Your task to perform on an android device: Show the shopping cart on ebay.com. Add acer nitro to the cart on ebay.com, then select checkout. Image 0: 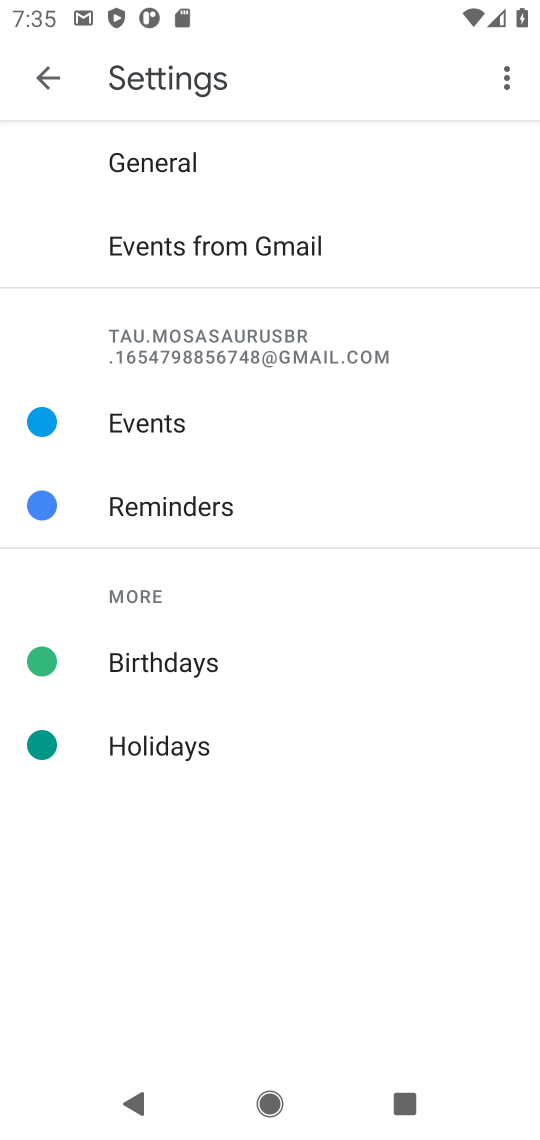
Step 0: click (507, 1113)
Your task to perform on an android device: Show the shopping cart on ebay.com. Add acer nitro to the cart on ebay.com, then select checkout. Image 1: 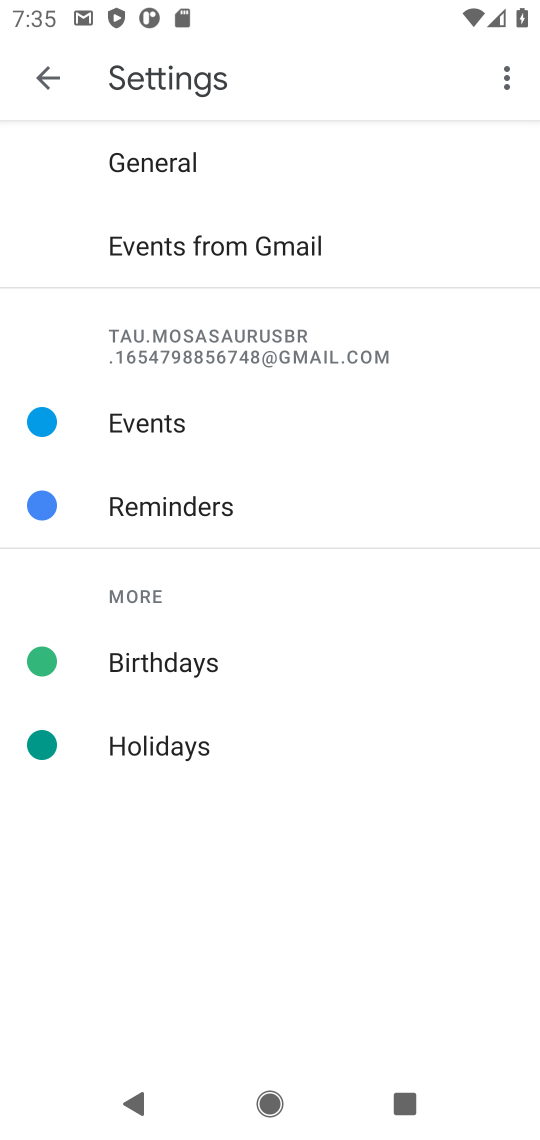
Step 1: press home button
Your task to perform on an android device: Show the shopping cart on ebay.com. Add acer nitro to the cart on ebay.com, then select checkout. Image 2: 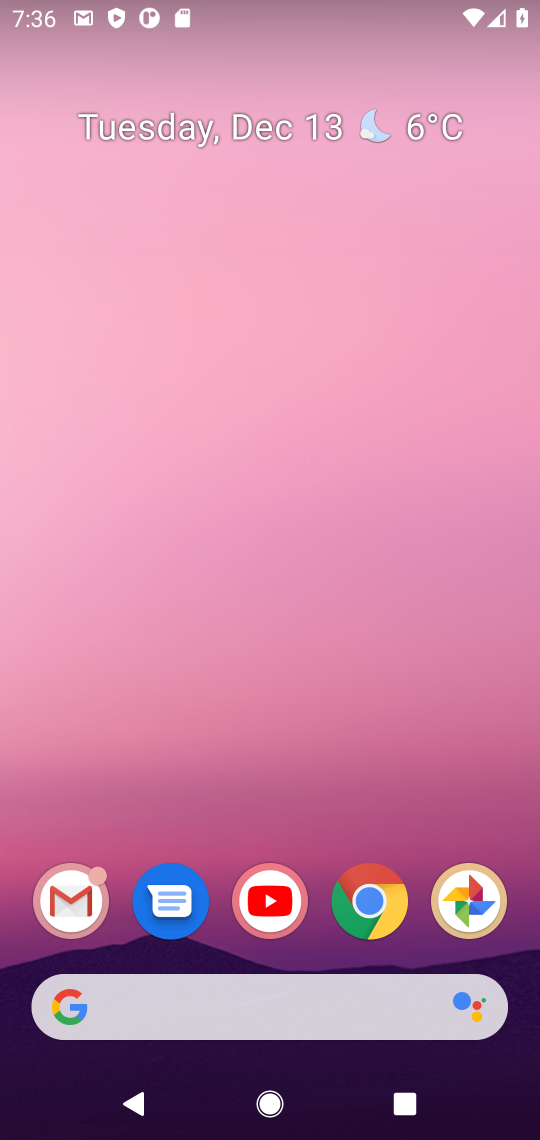
Step 2: click (359, 904)
Your task to perform on an android device: Show the shopping cart on ebay.com. Add acer nitro to the cart on ebay.com, then select checkout. Image 3: 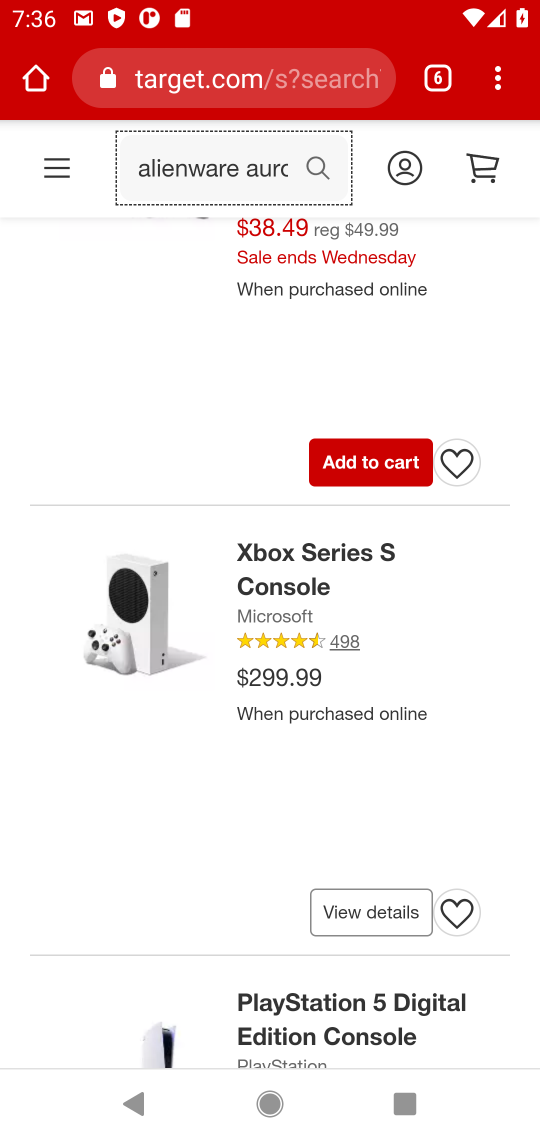
Step 3: click (437, 65)
Your task to perform on an android device: Show the shopping cart on ebay.com. Add acer nitro to the cart on ebay.com, then select checkout. Image 4: 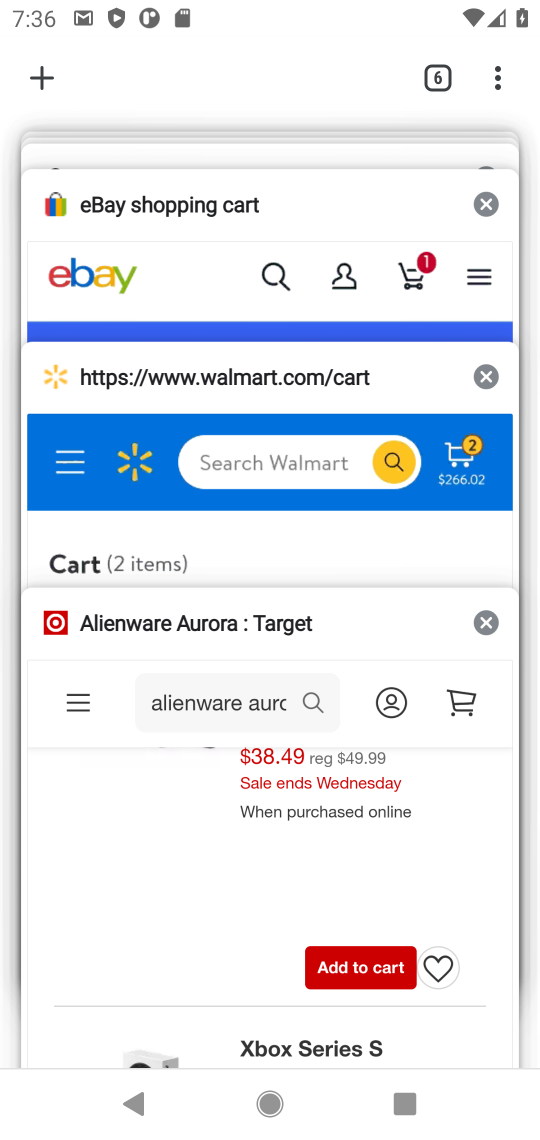
Step 4: click (255, 241)
Your task to perform on an android device: Show the shopping cart on ebay.com. Add acer nitro to the cart on ebay.com, then select checkout. Image 5: 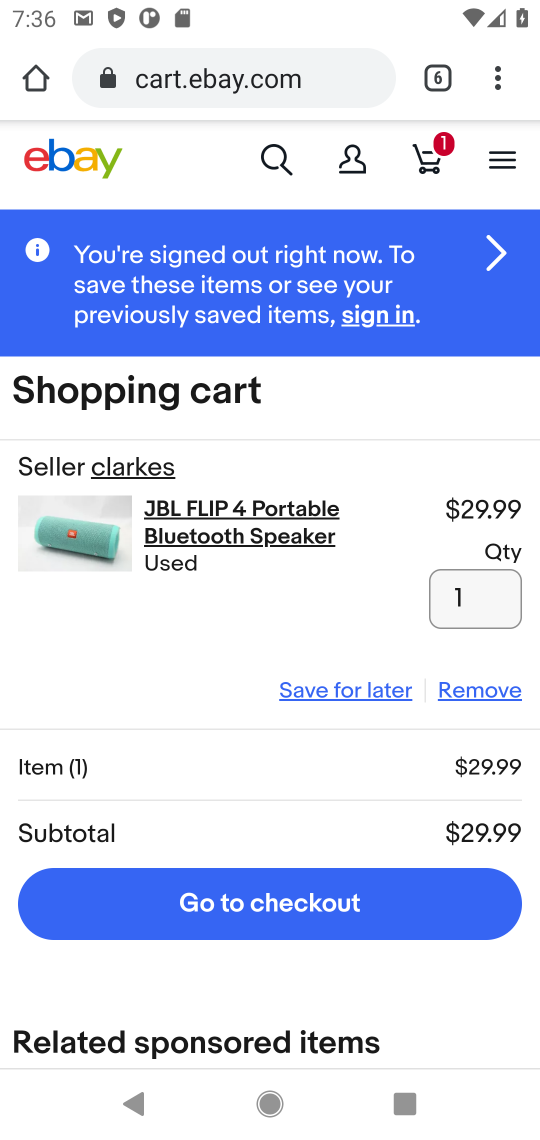
Step 5: click (278, 149)
Your task to perform on an android device: Show the shopping cart on ebay.com. Add acer nitro to the cart on ebay.com, then select checkout. Image 6: 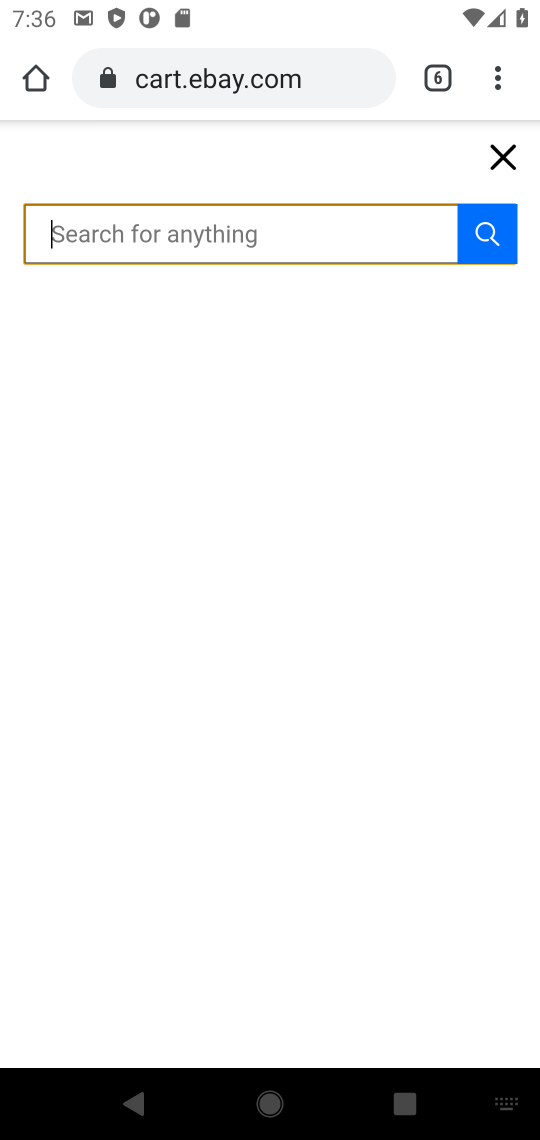
Step 6: type "acer nitro"
Your task to perform on an android device: Show the shopping cart on ebay.com. Add acer nitro to the cart on ebay.com, then select checkout. Image 7: 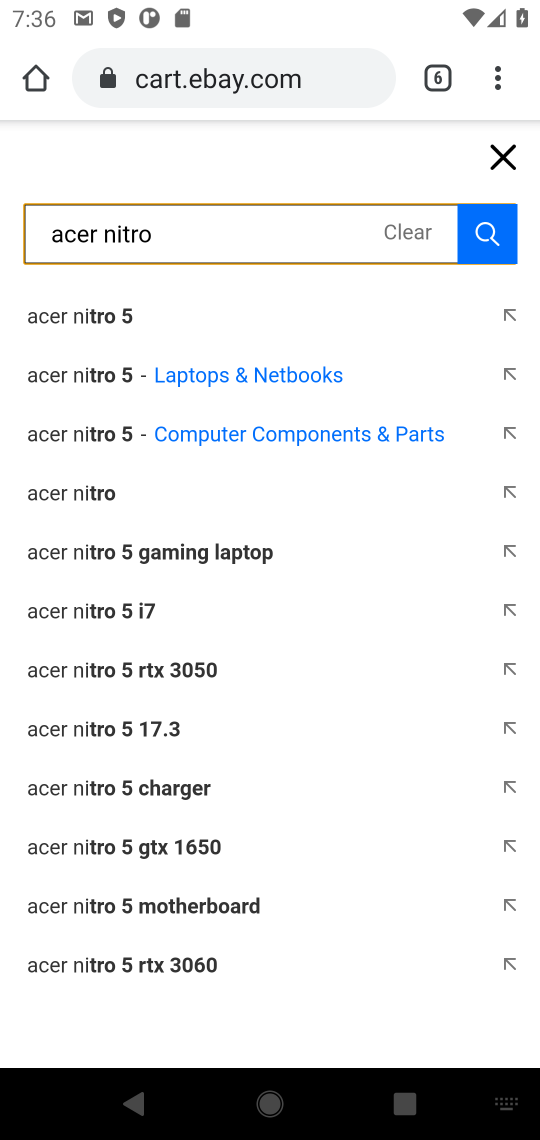
Step 7: click (46, 374)
Your task to perform on an android device: Show the shopping cart on ebay.com. Add acer nitro to the cart on ebay.com, then select checkout. Image 8: 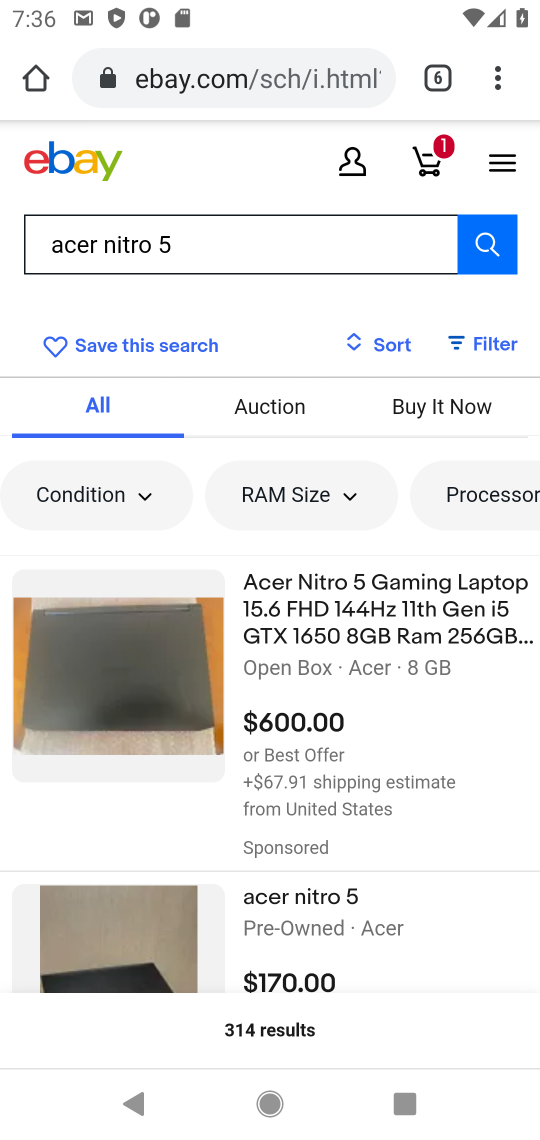
Step 8: click (305, 646)
Your task to perform on an android device: Show the shopping cart on ebay.com. Add acer nitro to the cart on ebay.com, then select checkout. Image 9: 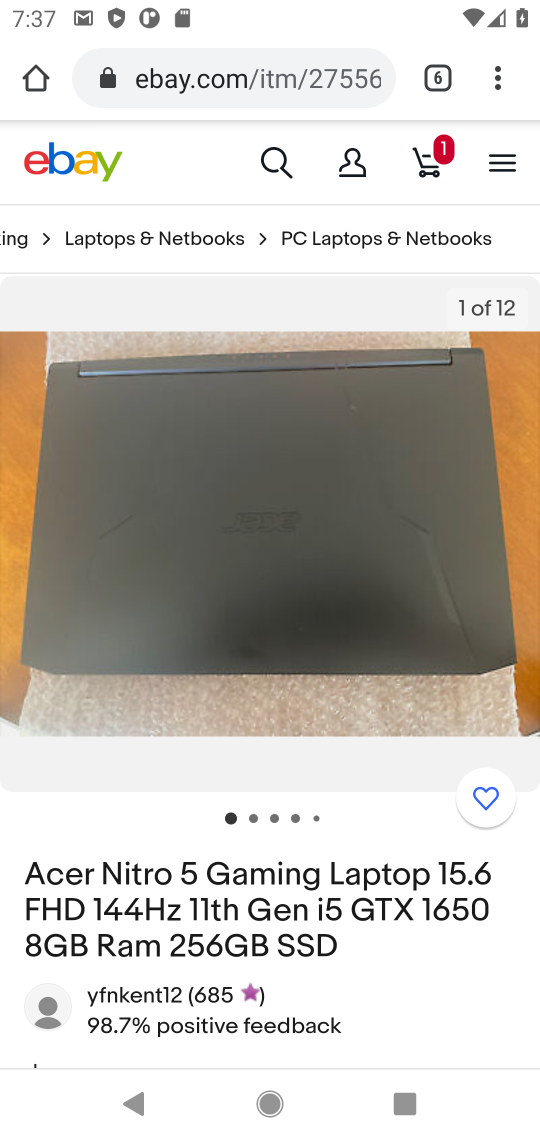
Step 9: drag from (318, 963) to (319, 281)
Your task to perform on an android device: Show the shopping cart on ebay.com. Add acer nitro to the cart on ebay.com, then select checkout. Image 10: 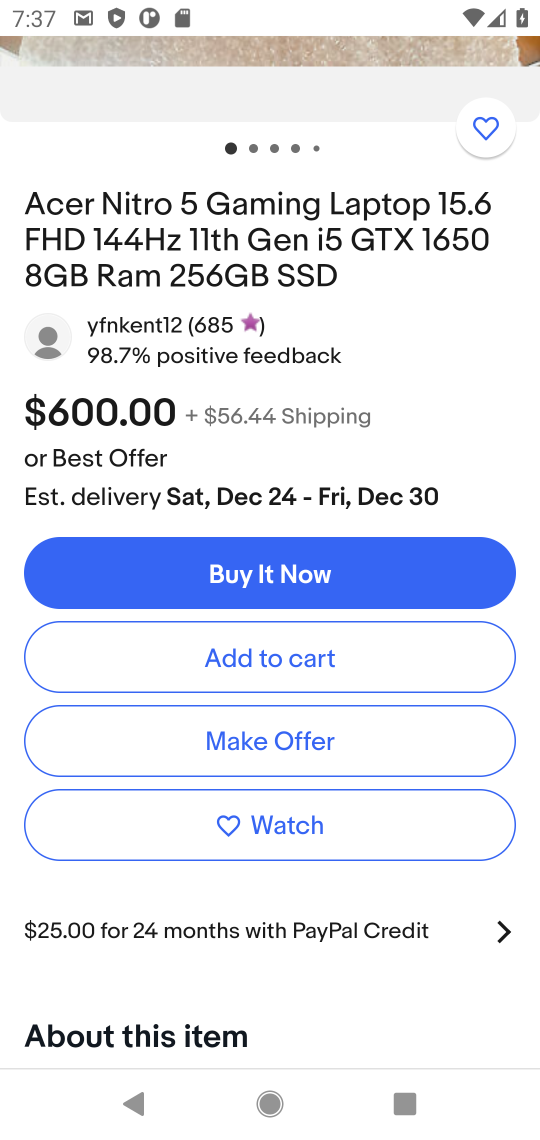
Step 10: click (287, 649)
Your task to perform on an android device: Show the shopping cart on ebay.com. Add acer nitro to the cart on ebay.com, then select checkout. Image 11: 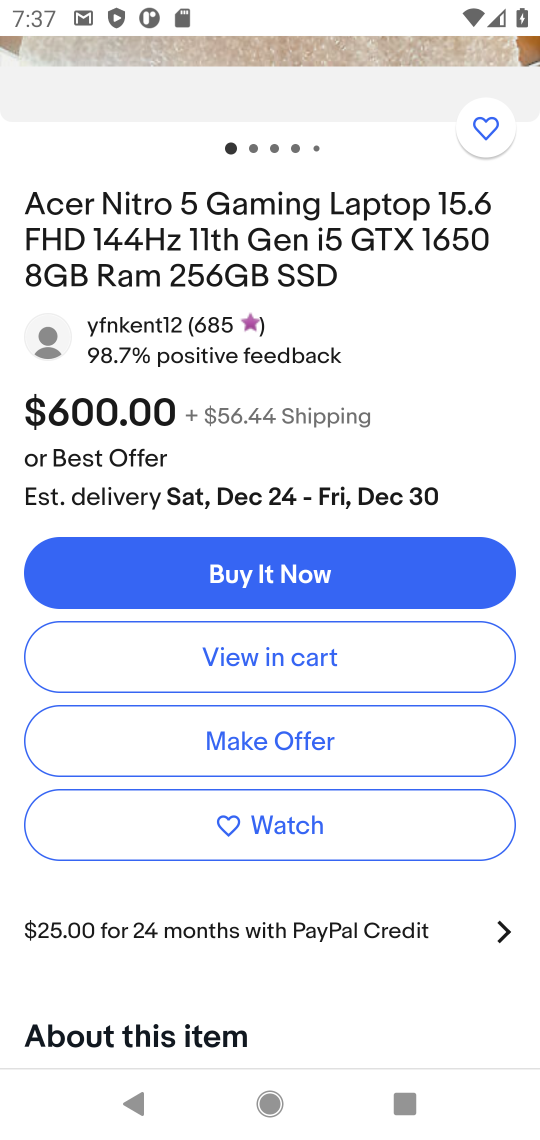
Step 11: click (287, 649)
Your task to perform on an android device: Show the shopping cart on ebay.com. Add acer nitro to the cart on ebay.com, then select checkout. Image 12: 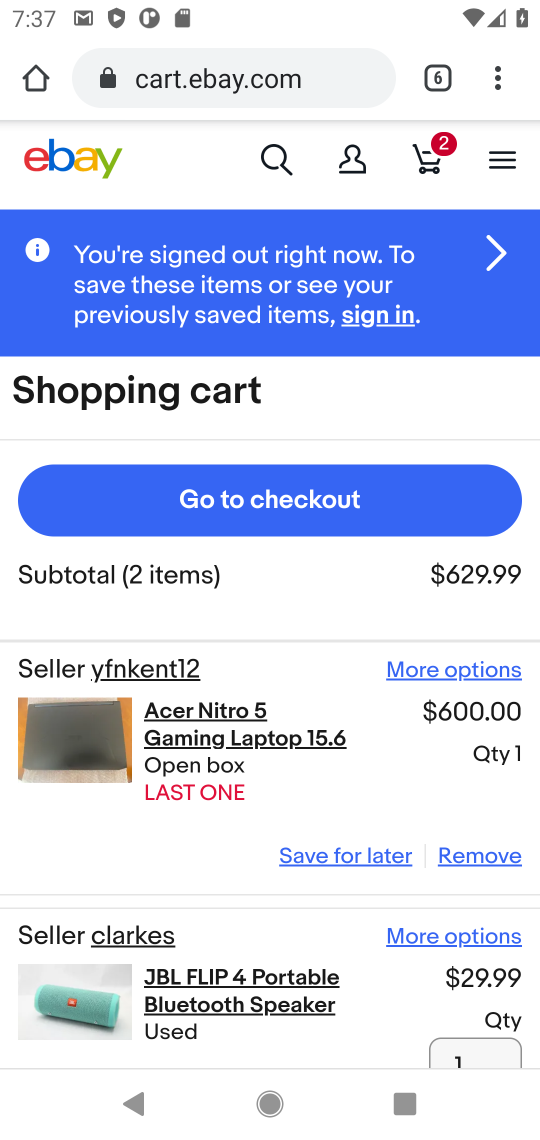
Step 12: click (303, 499)
Your task to perform on an android device: Show the shopping cart on ebay.com. Add acer nitro to the cart on ebay.com, then select checkout. Image 13: 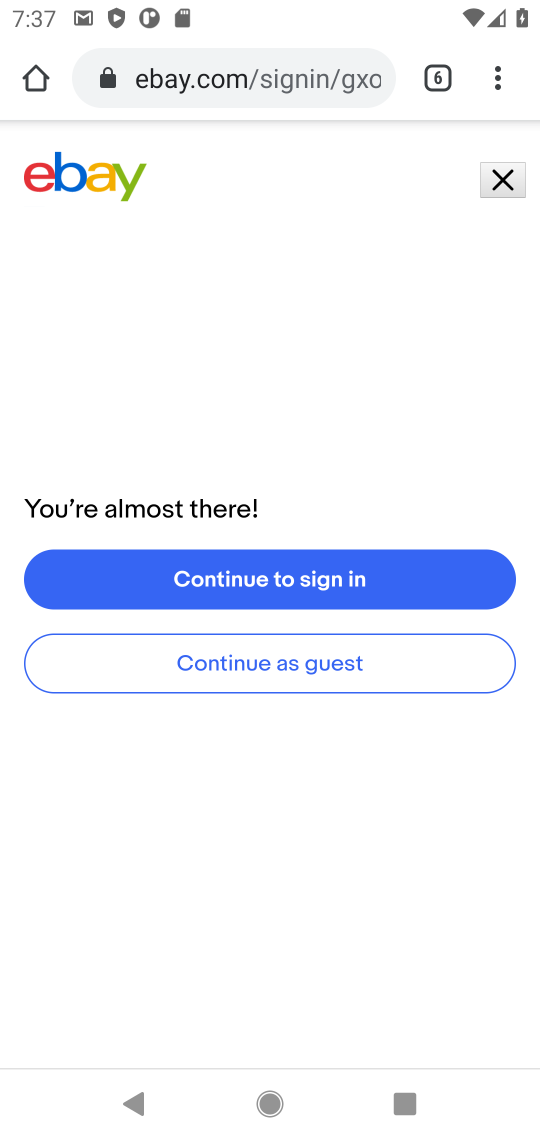
Step 13: task complete